Your task to perform on an android device: open app "Booking.com: Hotels and more" Image 0: 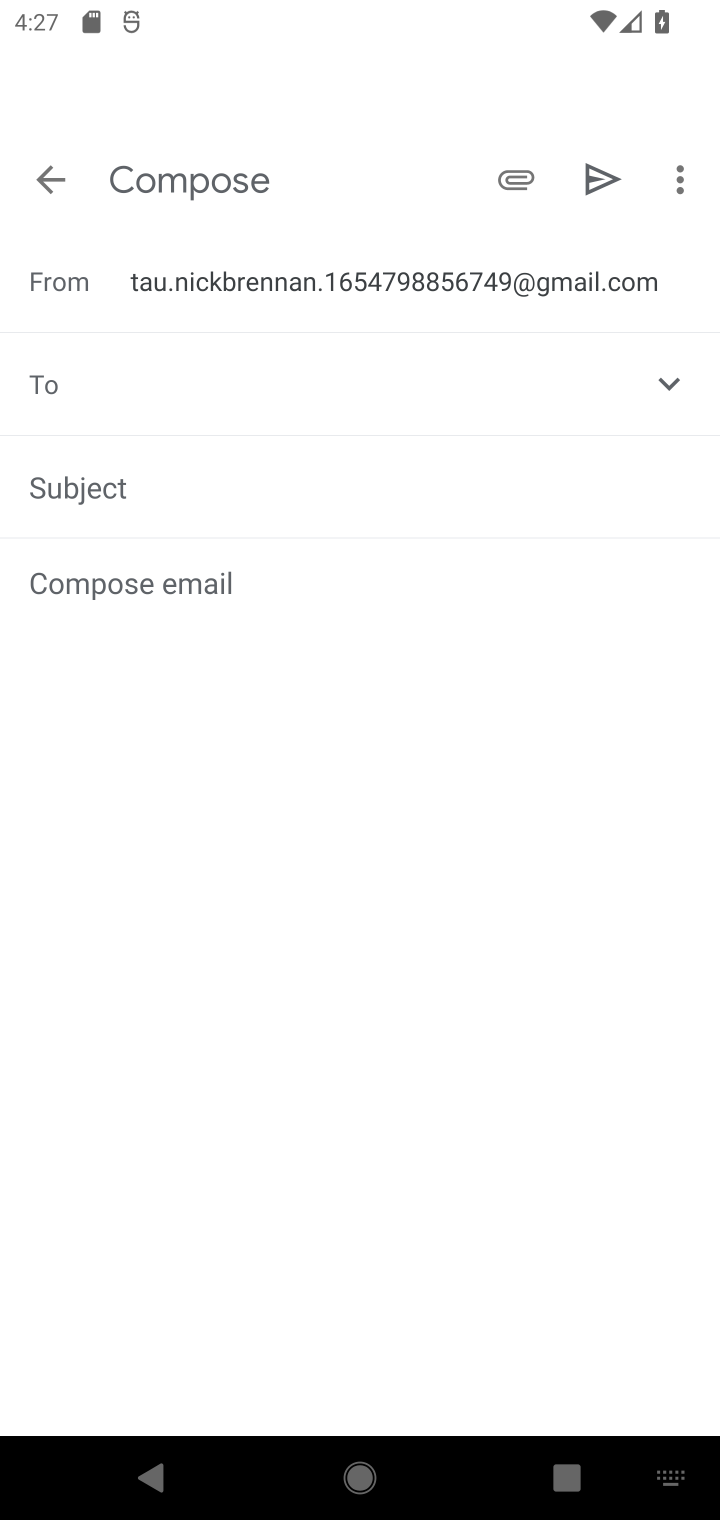
Step 0: press home button
Your task to perform on an android device: open app "Booking.com: Hotels and more" Image 1: 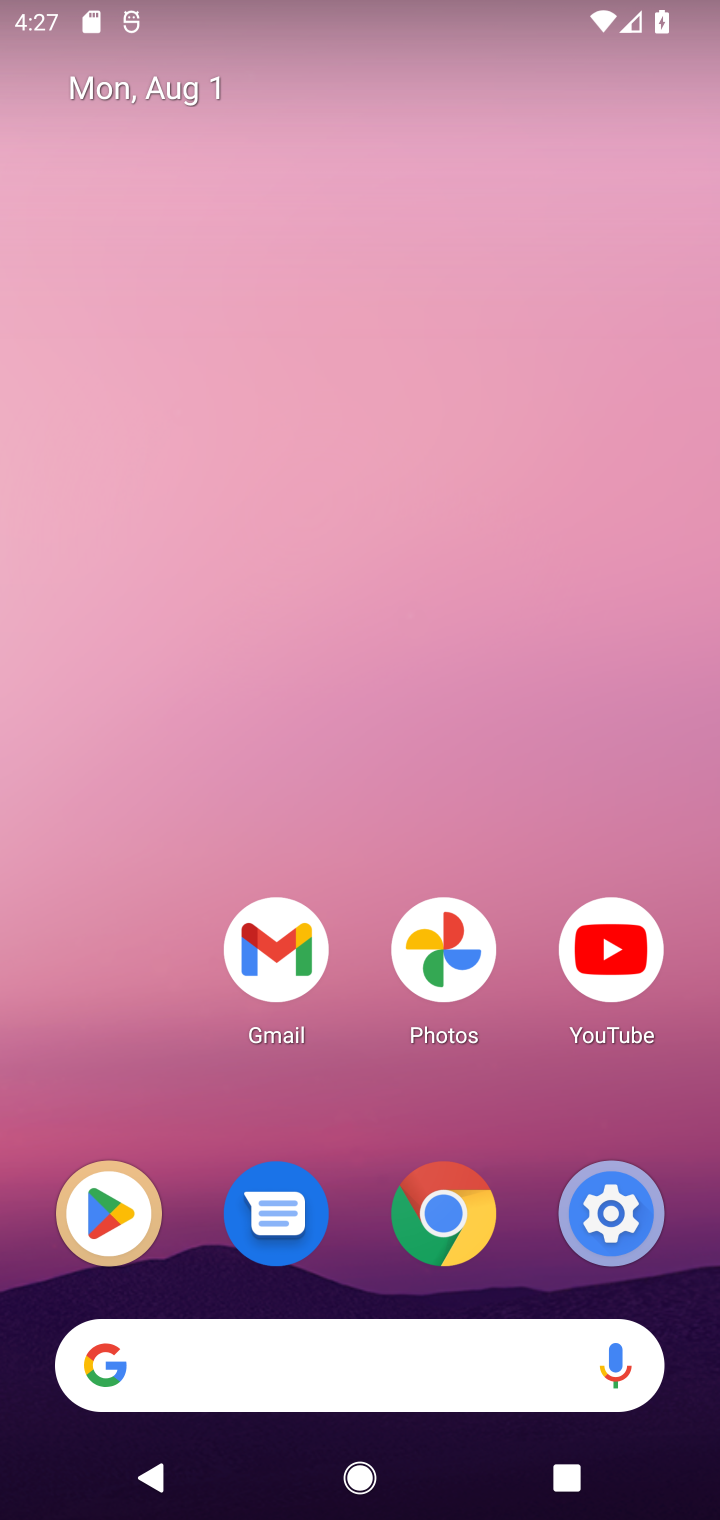
Step 1: drag from (513, 1133) to (533, 16)
Your task to perform on an android device: open app "Booking.com: Hotels and more" Image 2: 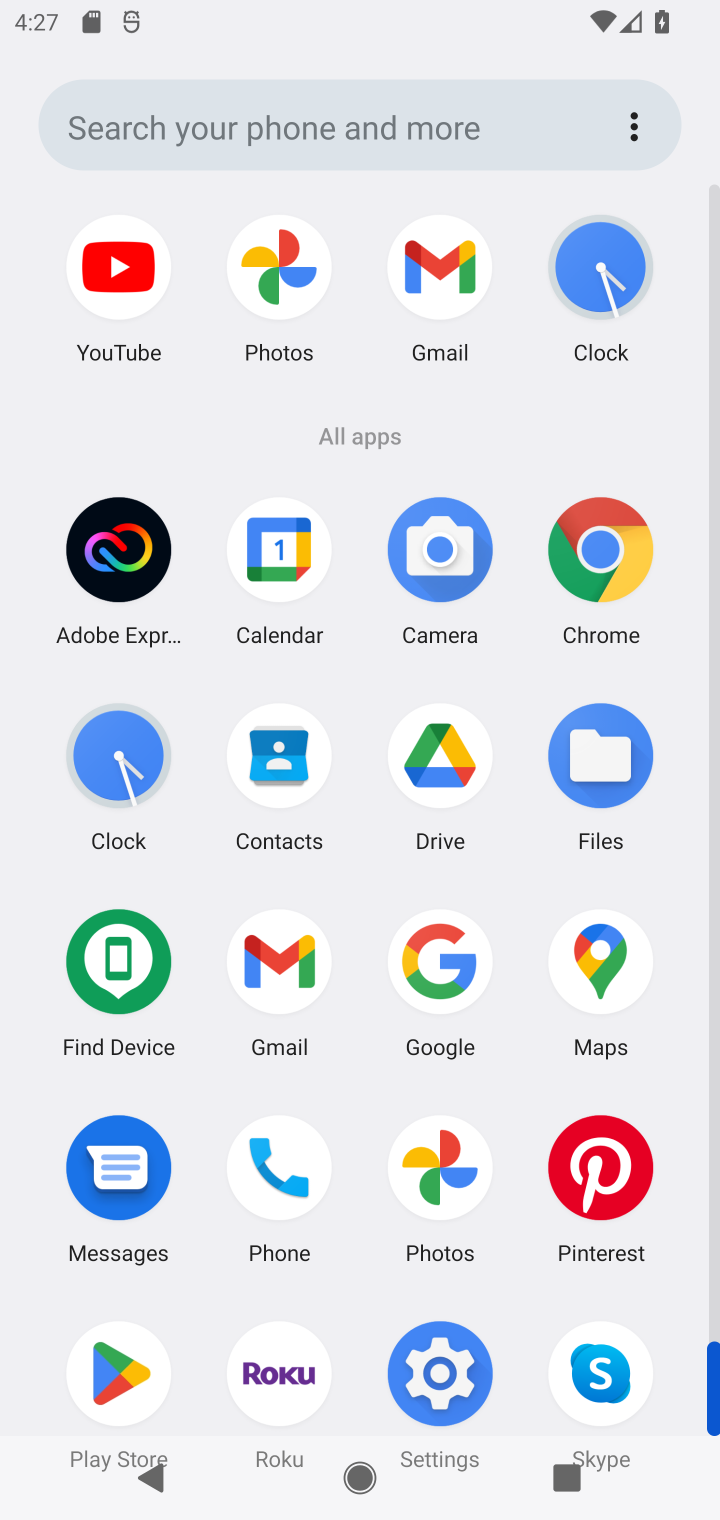
Step 2: click (84, 1392)
Your task to perform on an android device: open app "Booking.com: Hotels and more" Image 3: 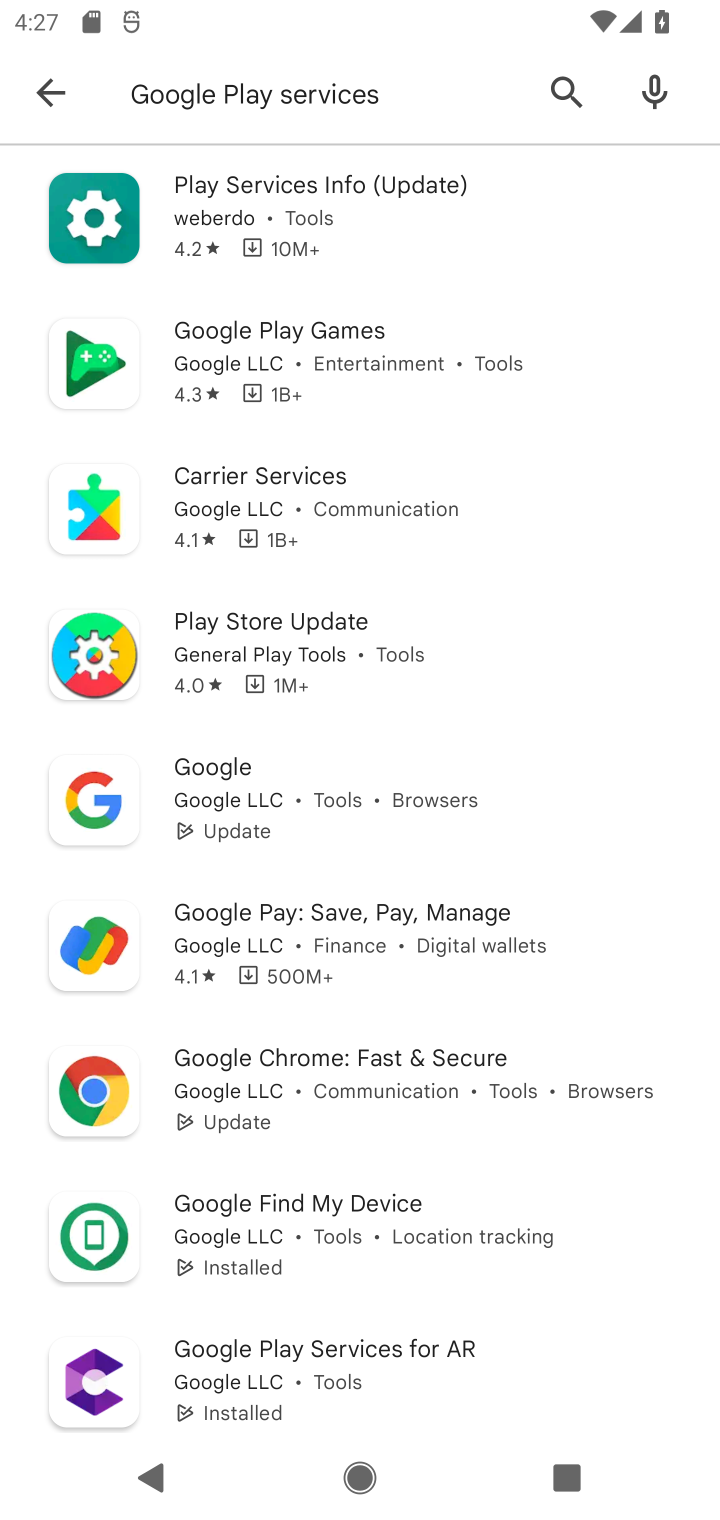
Step 3: click (386, 93)
Your task to perform on an android device: open app "Booking.com: Hotels and more" Image 4: 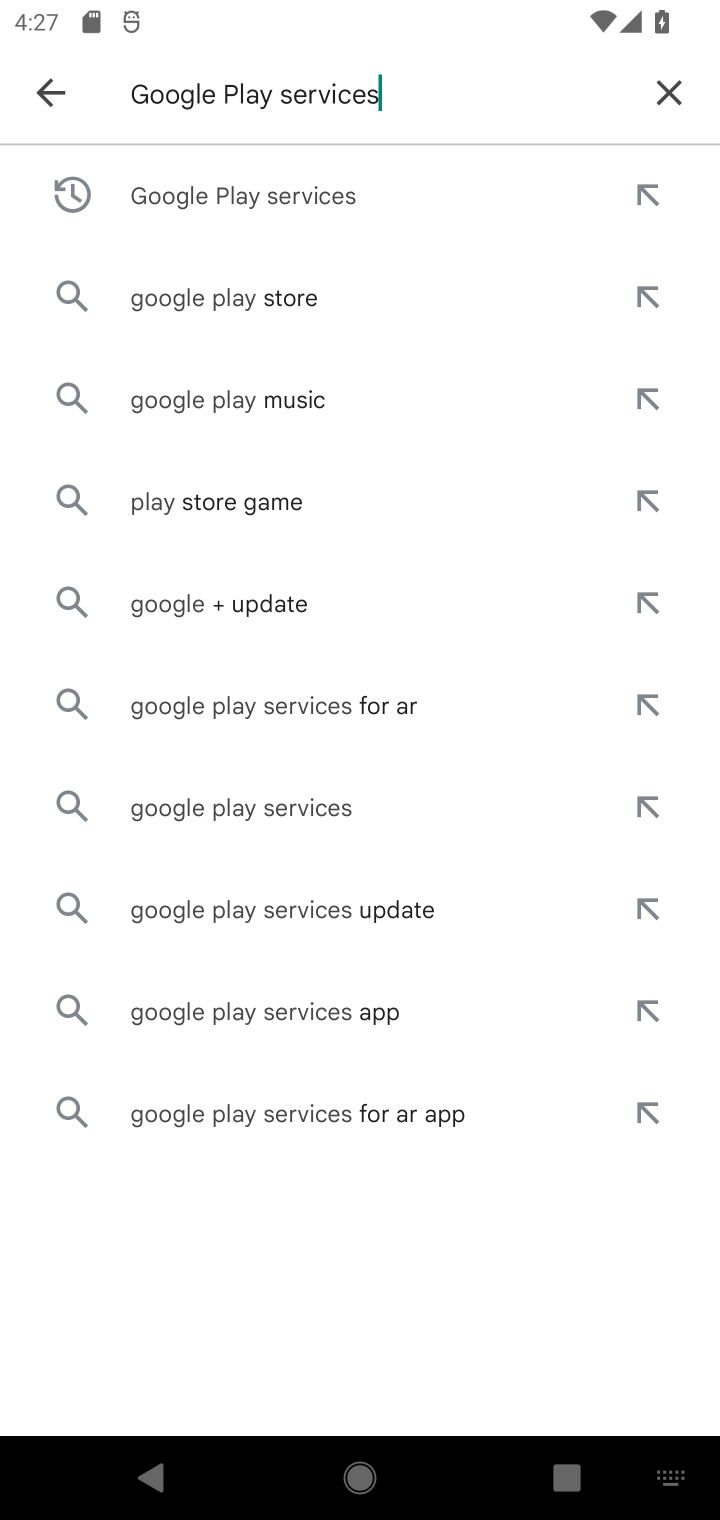
Step 4: click (679, 85)
Your task to perform on an android device: open app "Booking.com: Hotels and more" Image 5: 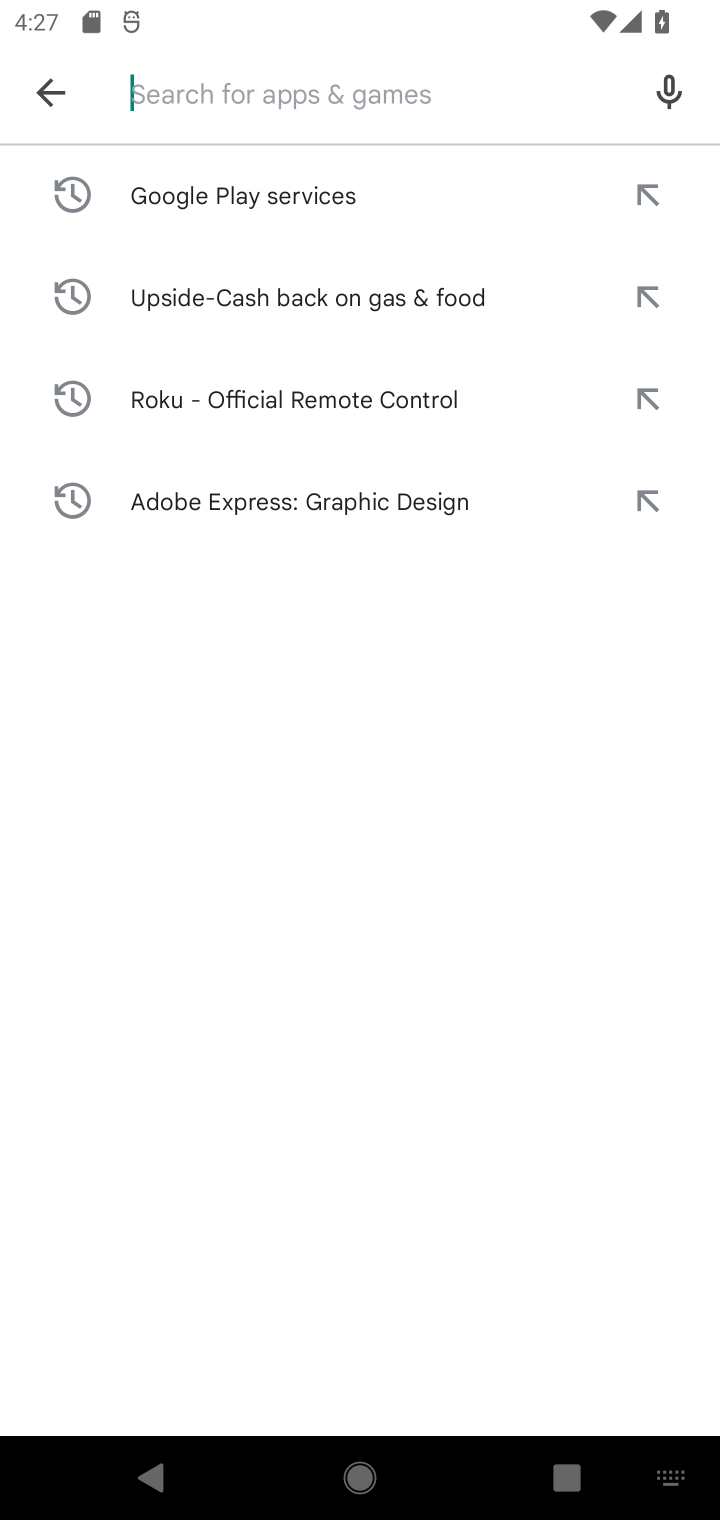
Step 5: type "Booking.com: Hotels and more "
Your task to perform on an android device: open app "Booking.com: Hotels and more" Image 6: 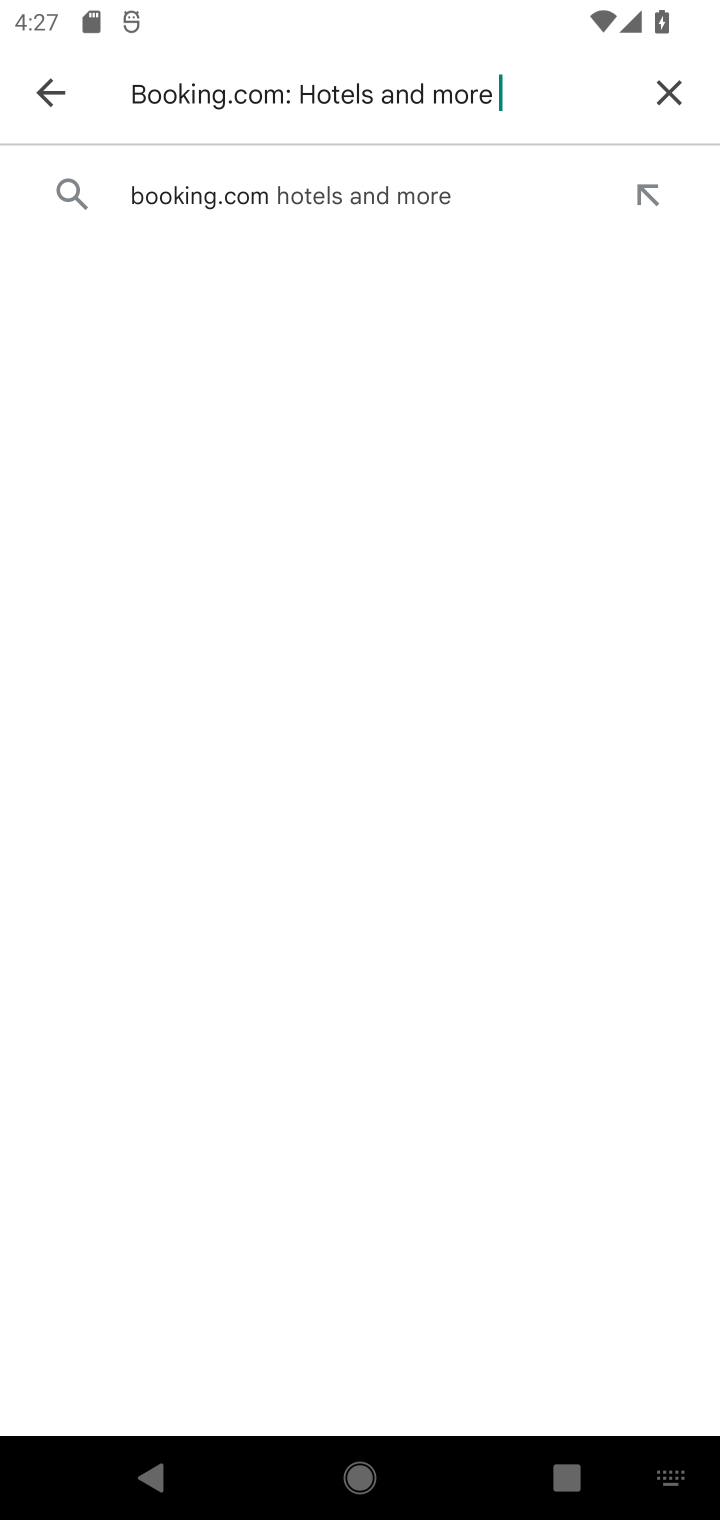
Step 6: press enter
Your task to perform on an android device: open app "Booking.com: Hotels and more" Image 7: 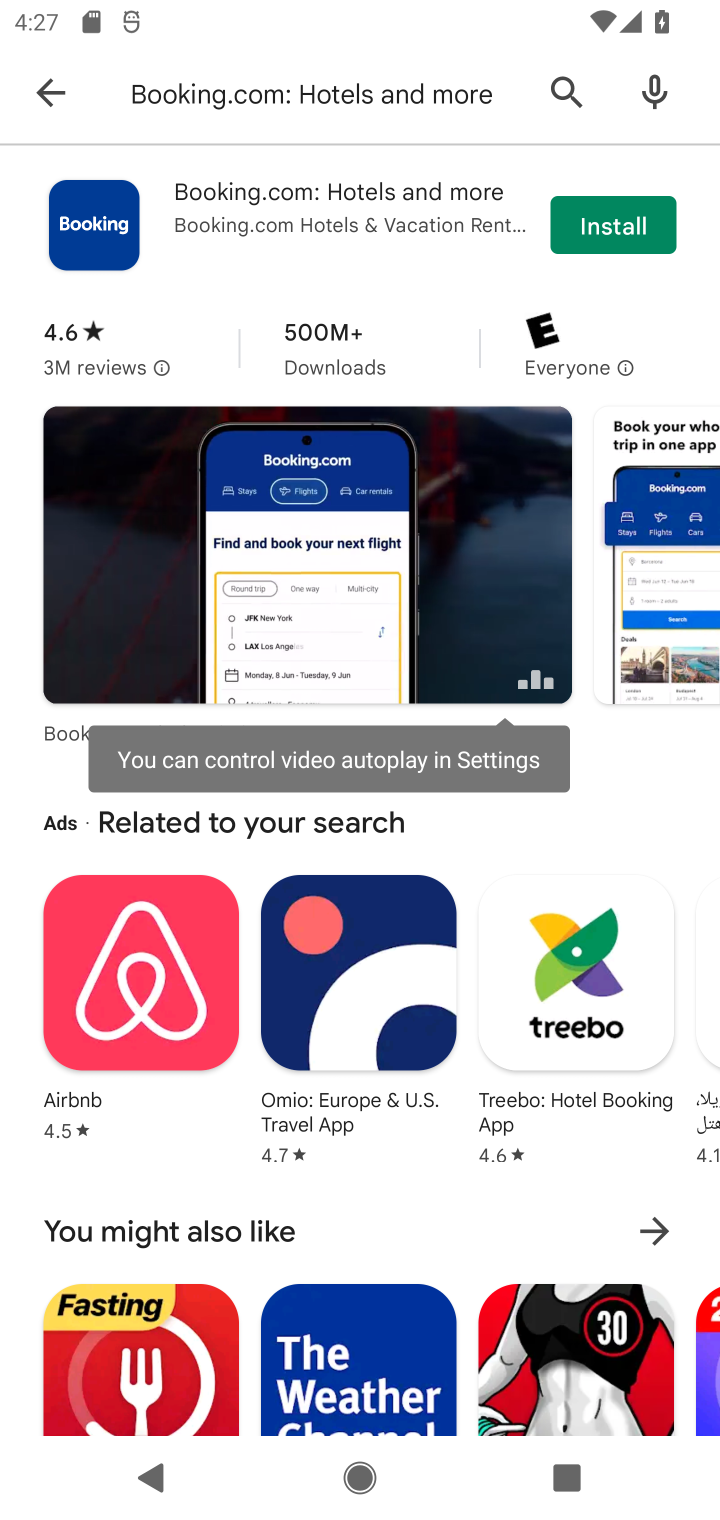
Step 7: task complete